Your task to perform on an android device: Open the map Image 0: 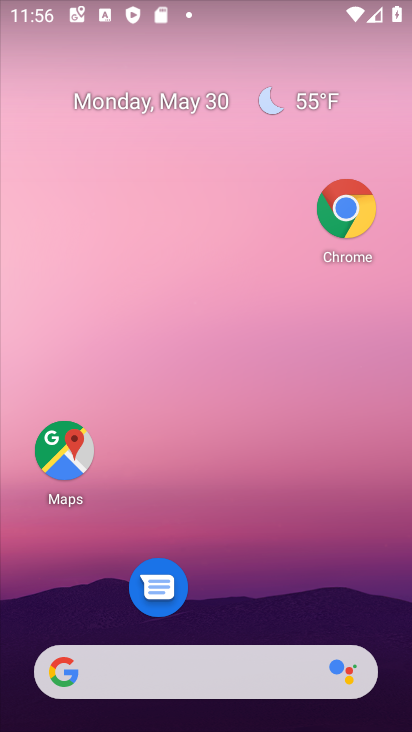
Step 0: click (64, 464)
Your task to perform on an android device: Open the map Image 1: 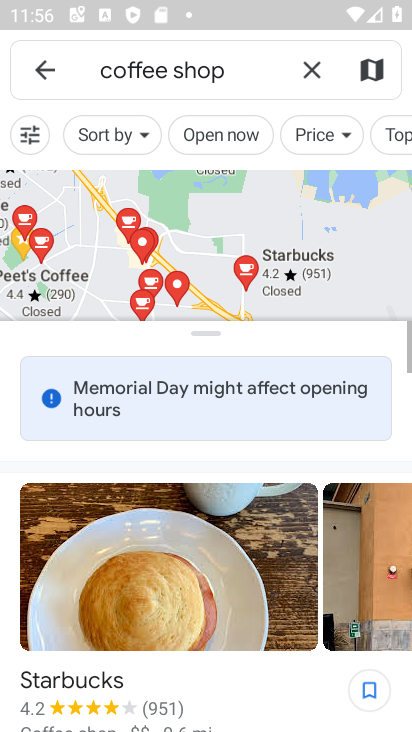
Step 1: task complete